Your task to perform on an android device: Go to internet settings Image 0: 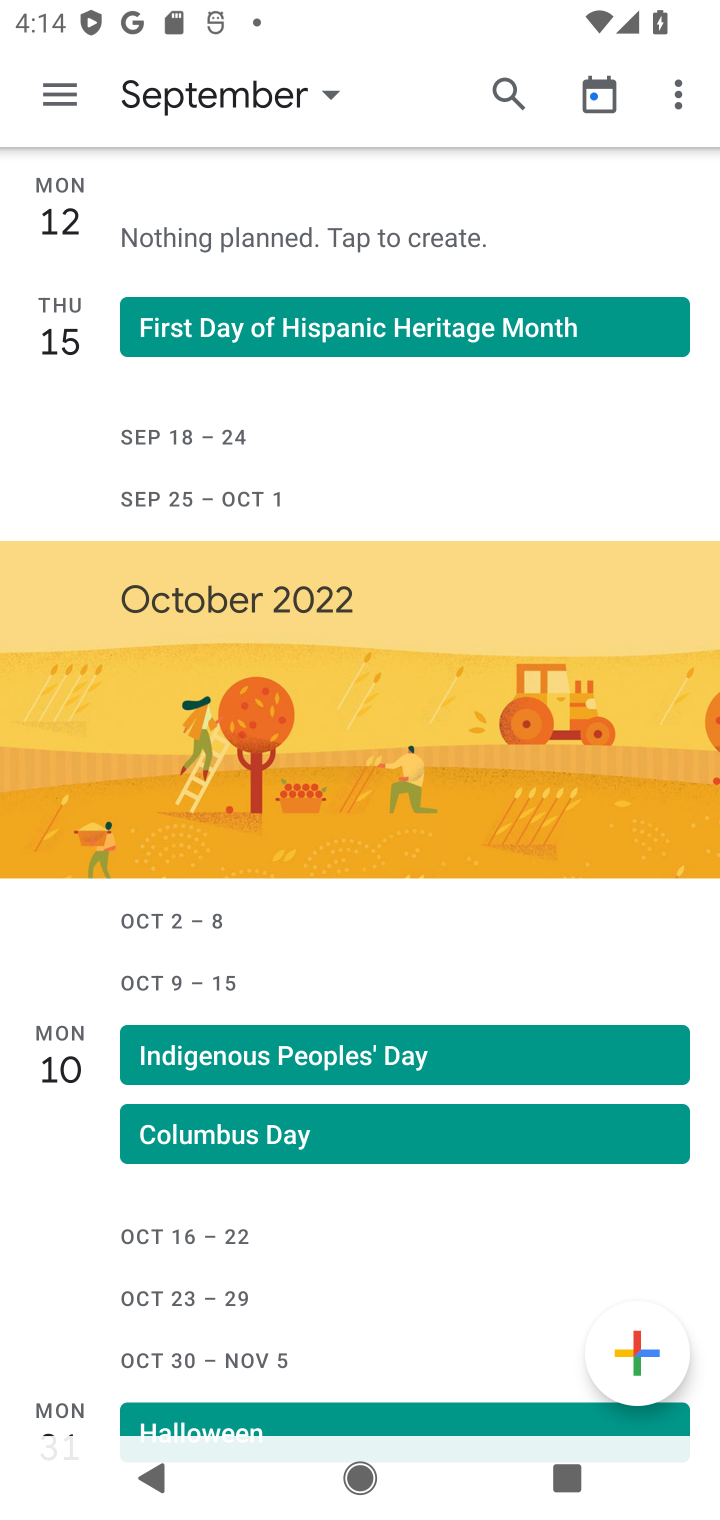
Step 0: press home button
Your task to perform on an android device: Go to internet settings Image 1: 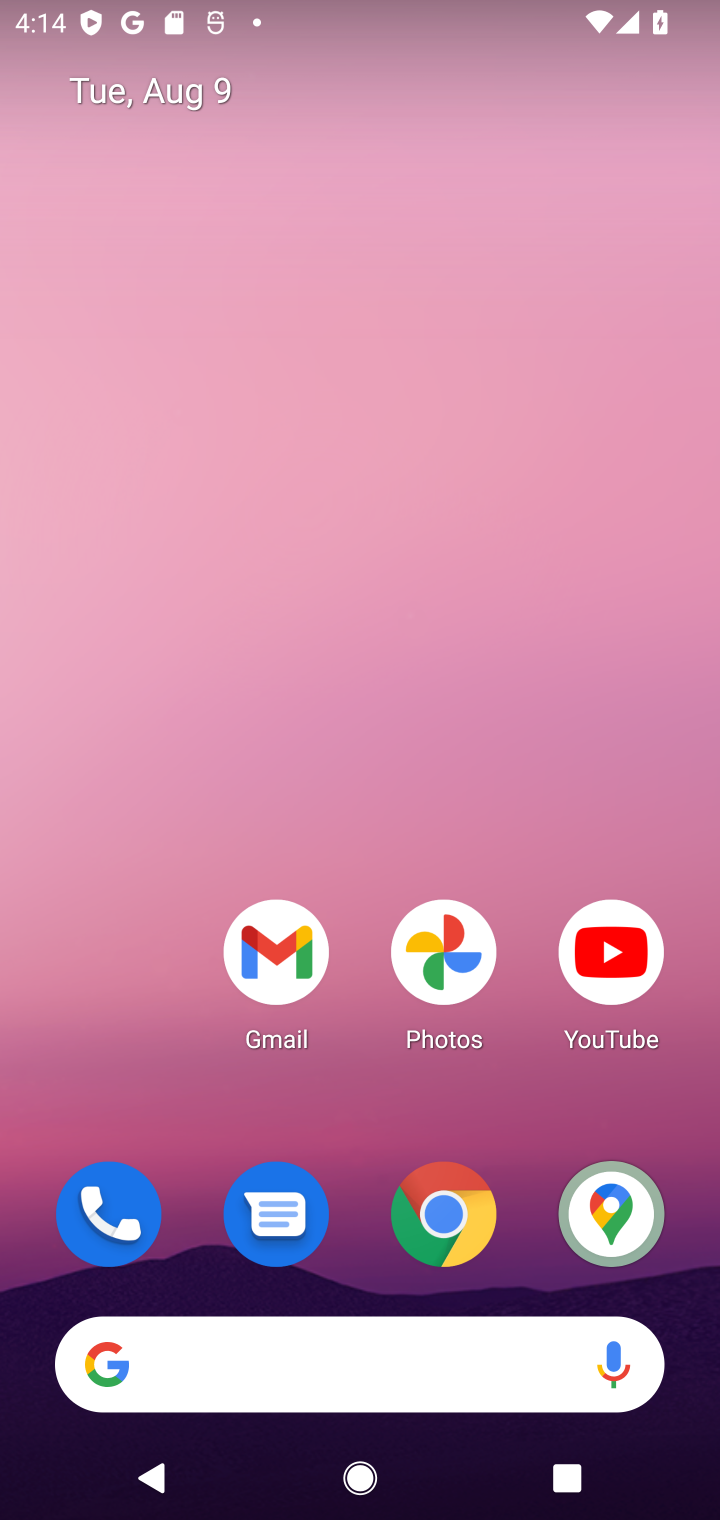
Step 1: drag from (502, 1326) to (245, 526)
Your task to perform on an android device: Go to internet settings Image 2: 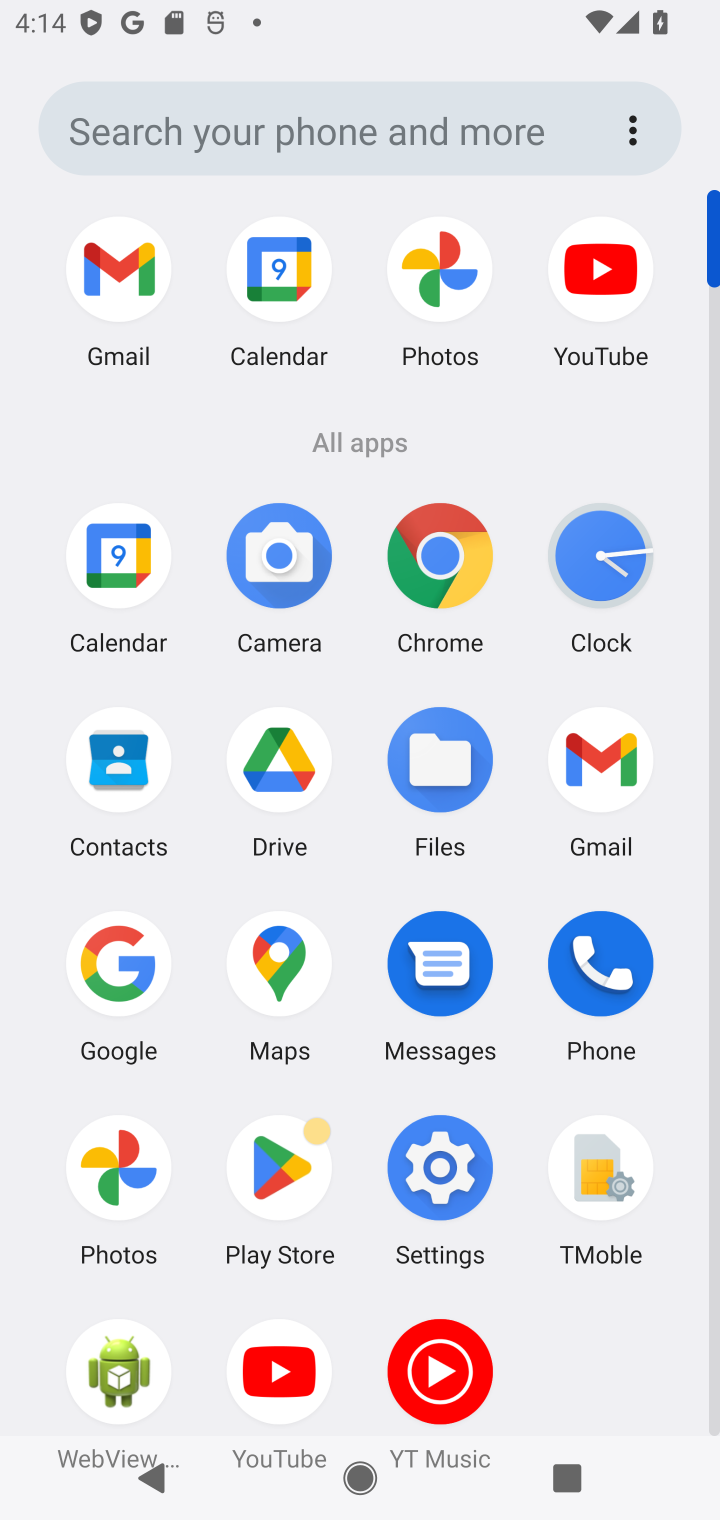
Step 2: click (437, 1172)
Your task to perform on an android device: Go to internet settings Image 3: 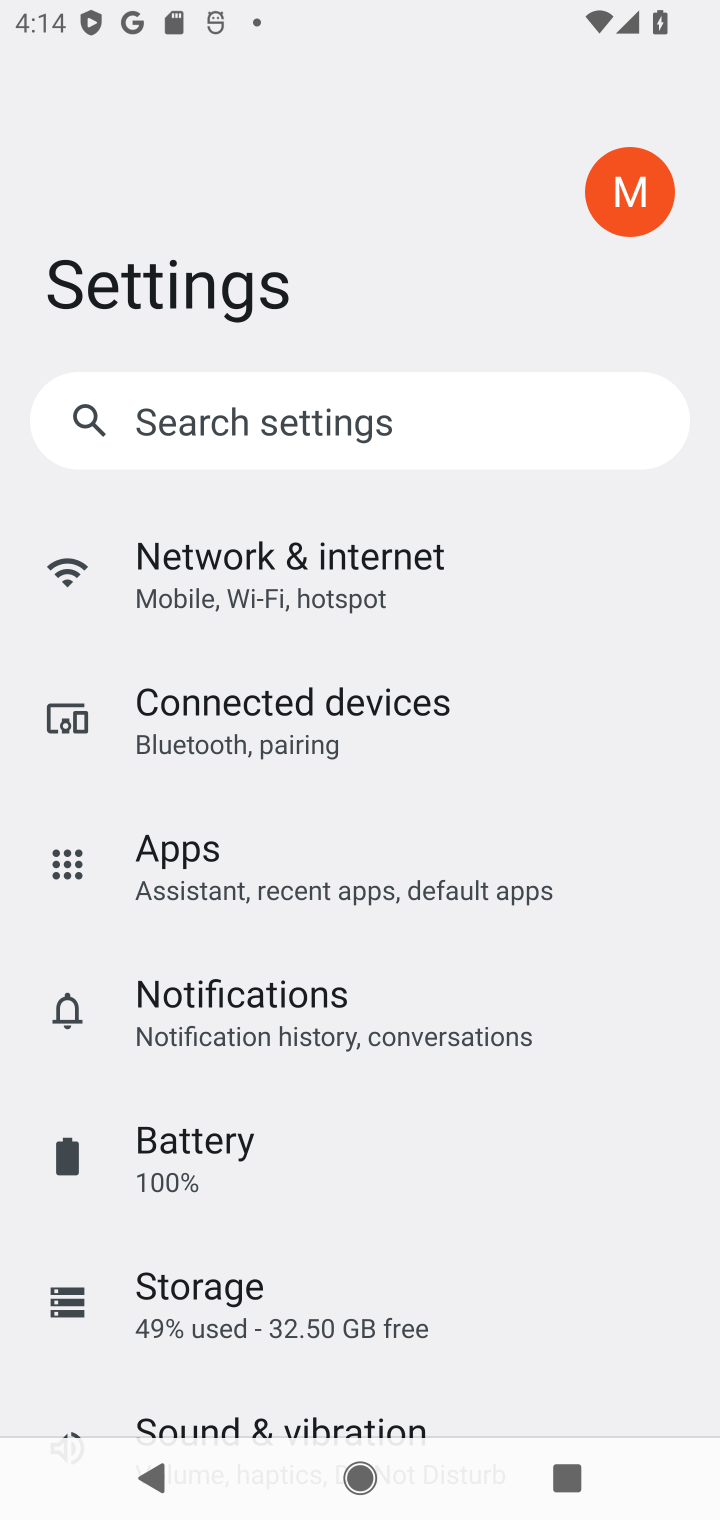
Step 3: click (333, 601)
Your task to perform on an android device: Go to internet settings Image 4: 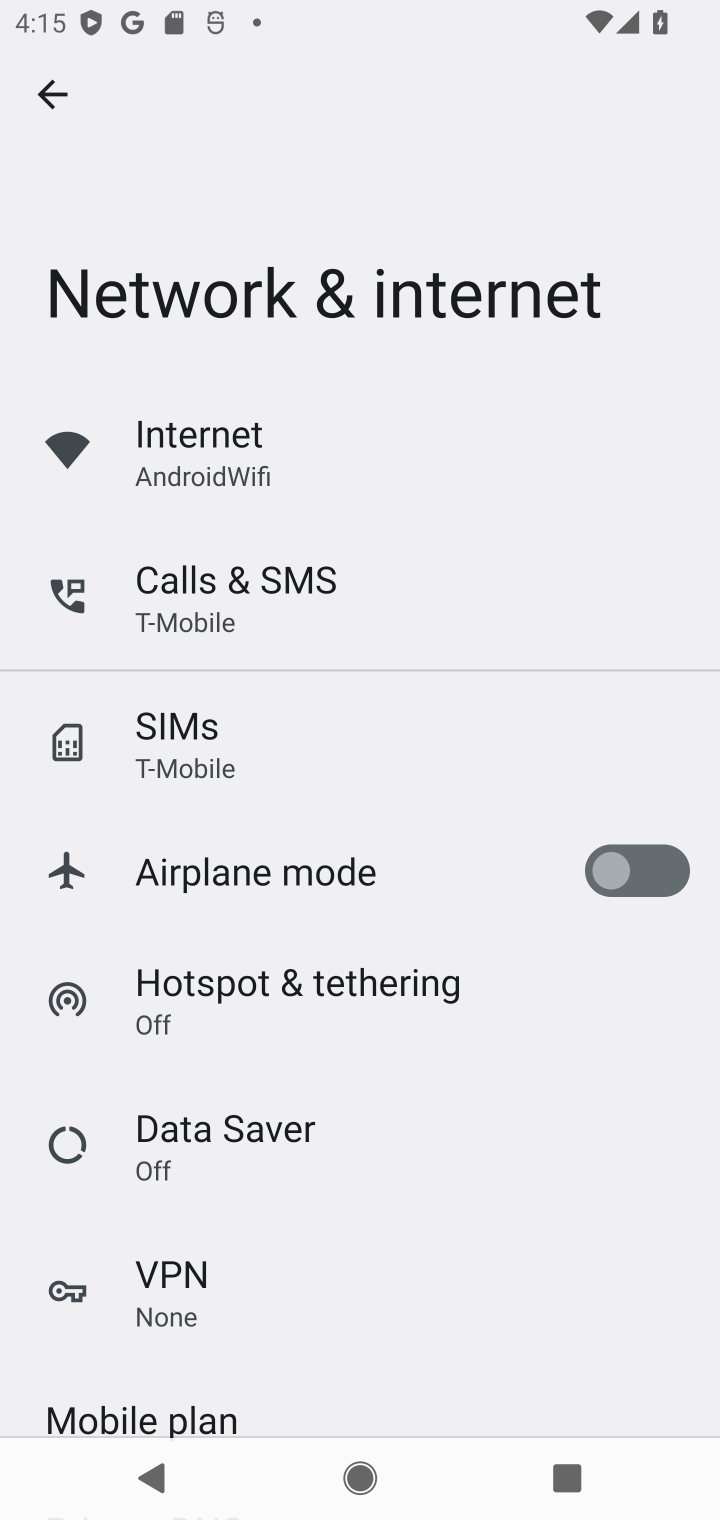
Step 4: click (253, 440)
Your task to perform on an android device: Go to internet settings Image 5: 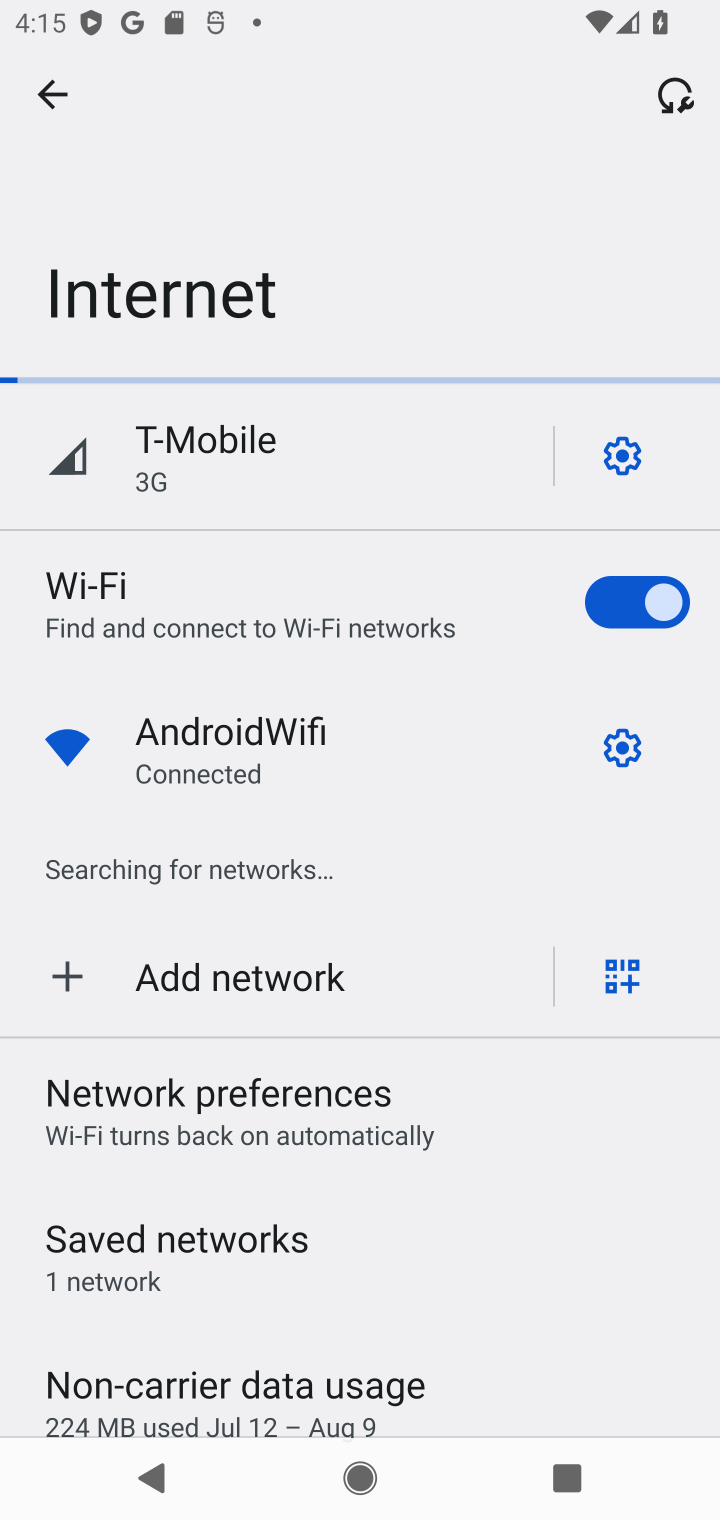
Step 5: task complete